Your task to perform on an android device: add a label to a message in the gmail app Image 0: 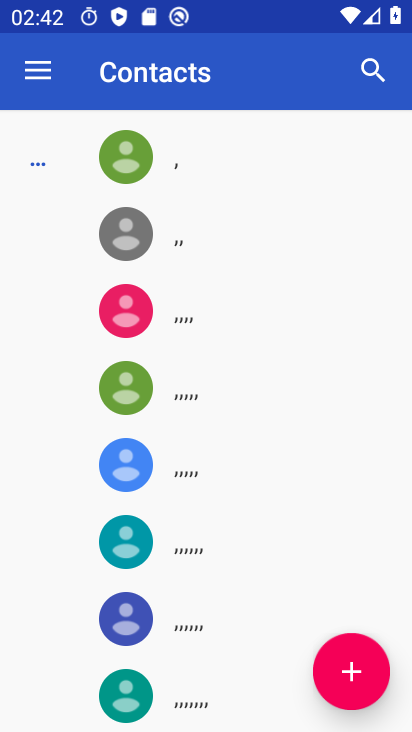
Step 0: press home button
Your task to perform on an android device: add a label to a message in the gmail app Image 1: 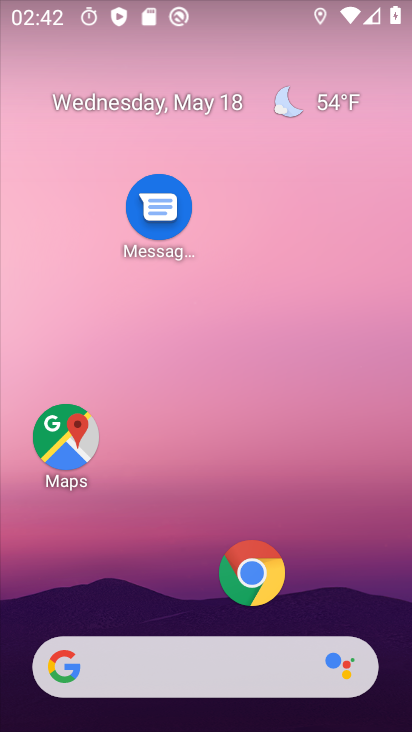
Step 1: drag from (187, 608) to (240, 144)
Your task to perform on an android device: add a label to a message in the gmail app Image 2: 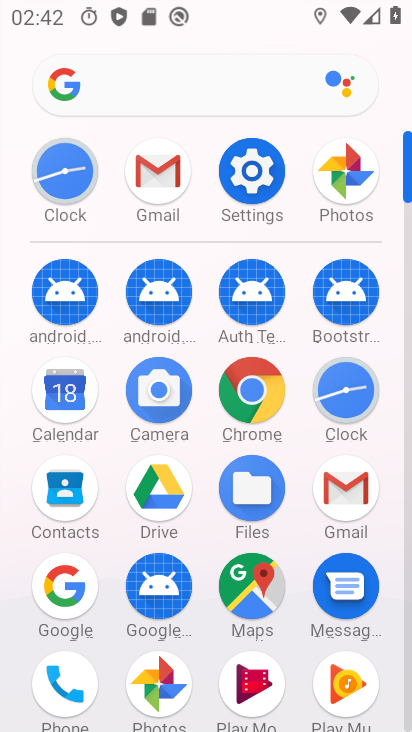
Step 2: click (147, 183)
Your task to perform on an android device: add a label to a message in the gmail app Image 3: 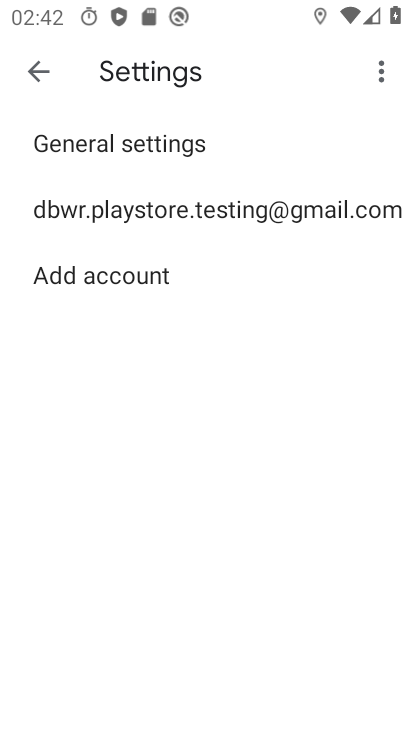
Step 3: click (32, 76)
Your task to perform on an android device: add a label to a message in the gmail app Image 4: 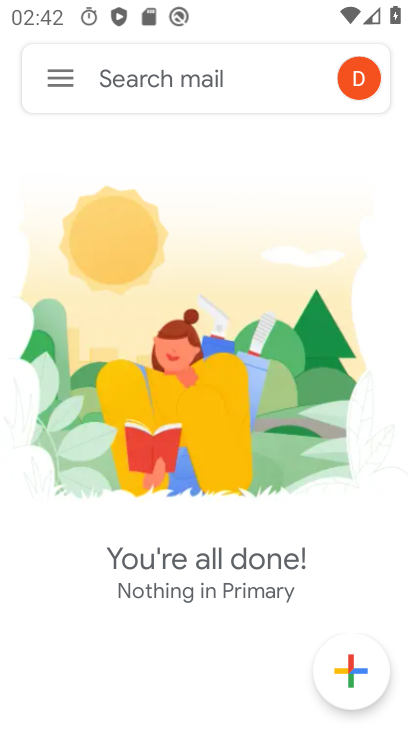
Step 4: click (58, 89)
Your task to perform on an android device: add a label to a message in the gmail app Image 5: 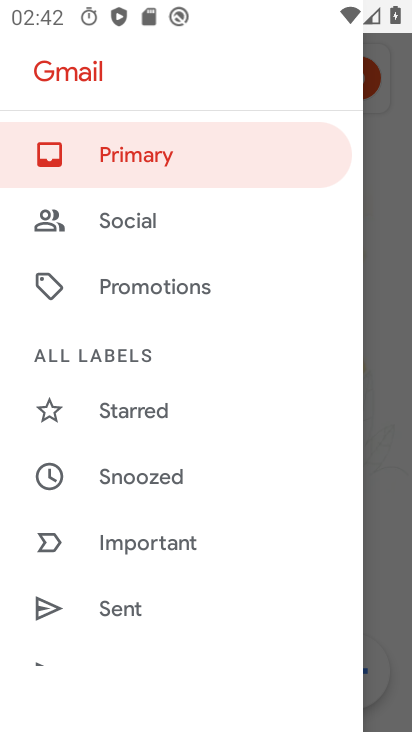
Step 5: click (383, 237)
Your task to perform on an android device: add a label to a message in the gmail app Image 6: 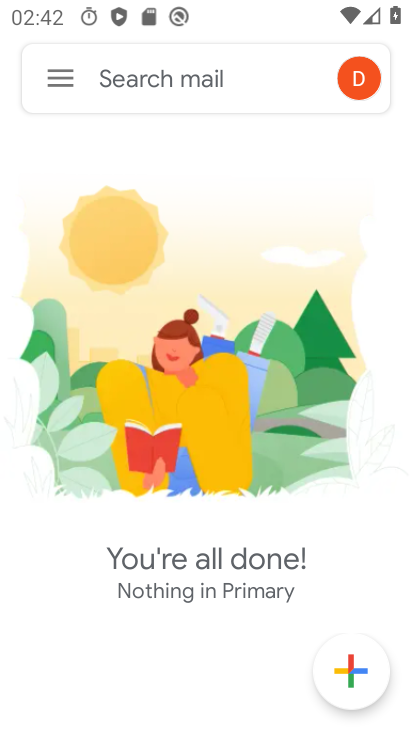
Step 6: task complete